Your task to perform on an android device: When is my next appointment? Image 0: 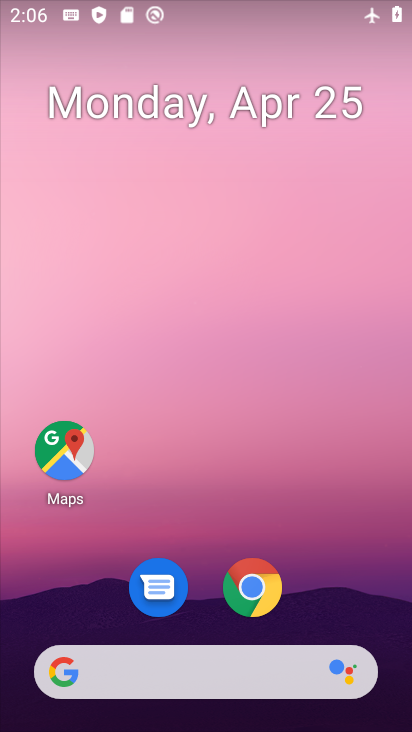
Step 0: drag from (358, 564) to (307, 70)
Your task to perform on an android device: When is my next appointment? Image 1: 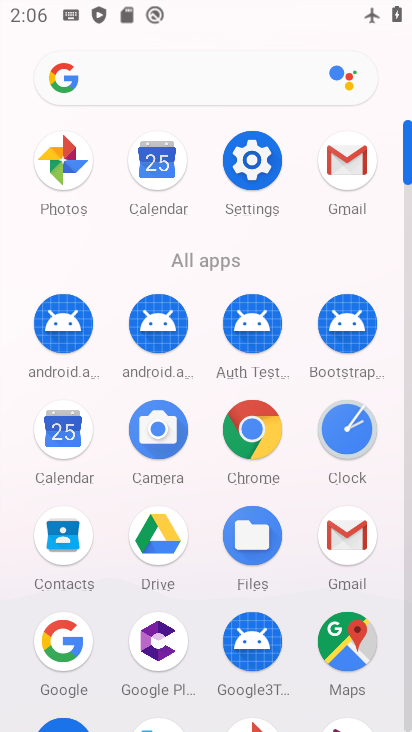
Step 1: click (56, 438)
Your task to perform on an android device: When is my next appointment? Image 2: 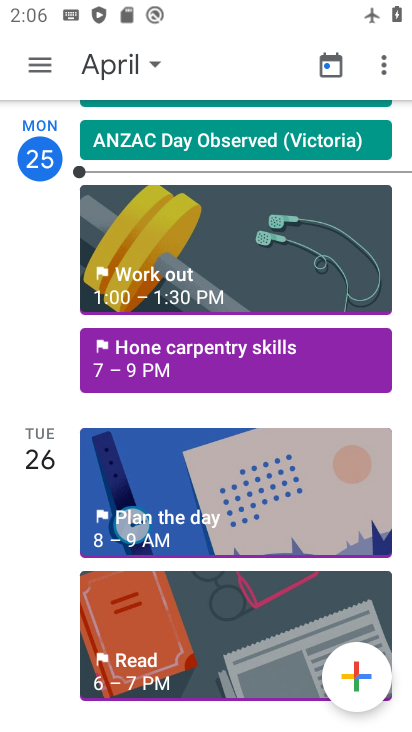
Step 2: task complete